Your task to perform on an android device: Go to privacy settings Image 0: 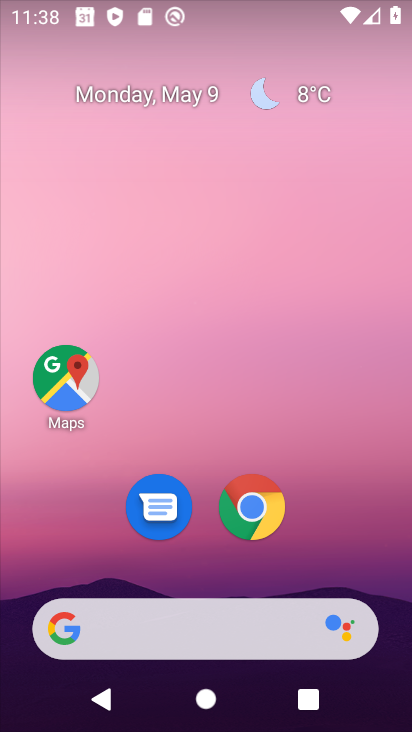
Step 0: drag from (330, 570) to (267, 135)
Your task to perform on an android device: Go to privacy settings Image 1: 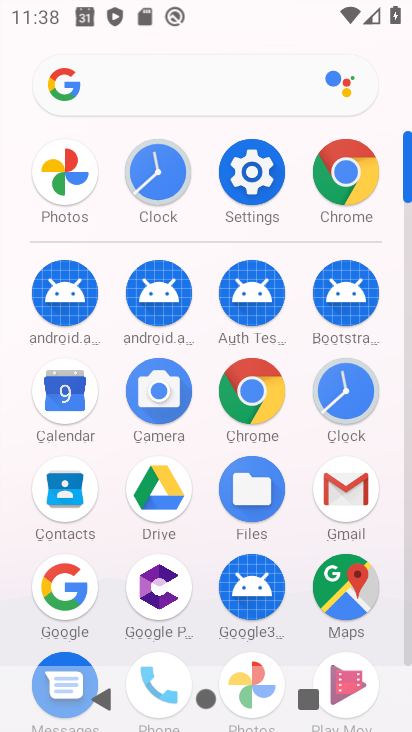
Step 1: click (246, 166)
Your task to perform on an android device: Go to privacy settings Image 2: 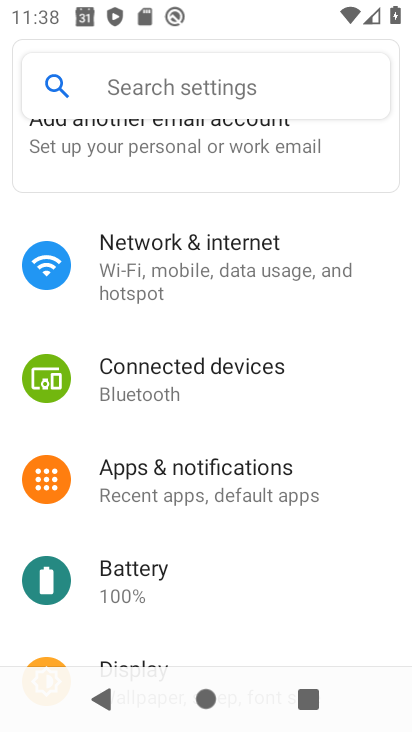
Step 2: drag from (289, 582) to (267, 271)
Your task to perform on an android device: Go to privacy settings Image 3: 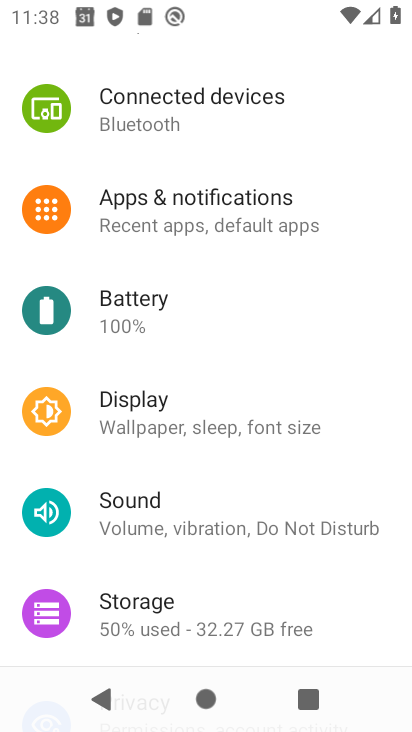
Step 3: drag from (217, 523) to (243, 176)
Your task to perform on an android device: Go to privacy settings Image 4: 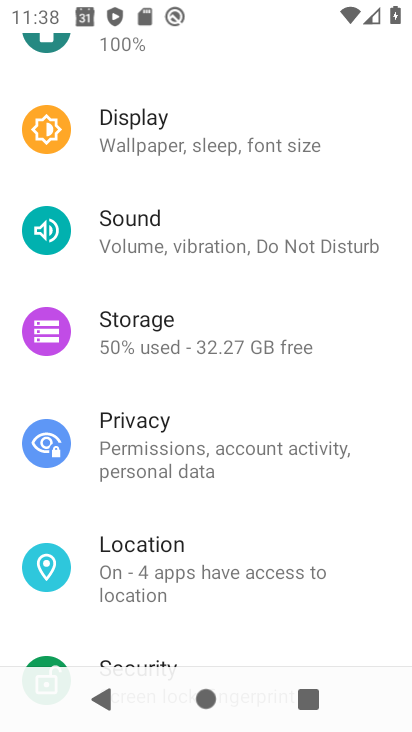
Step 4: click (157, 435)
Your task to perform on an android device: Go to privacy settings Image 5: 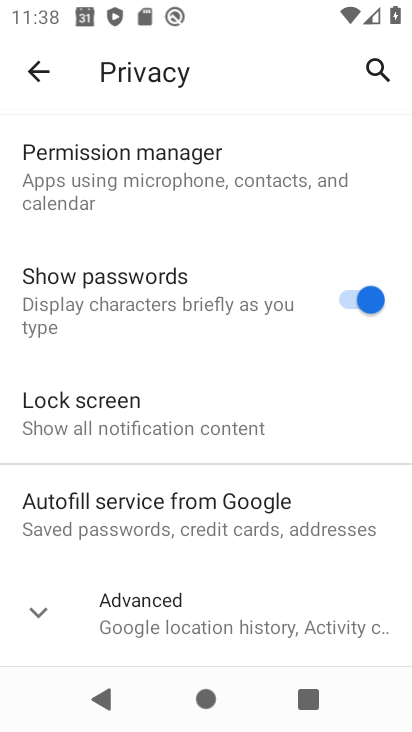
Step 5: task complete